Your task to perform on an android device: change notification settings in the gmail app Image 0: 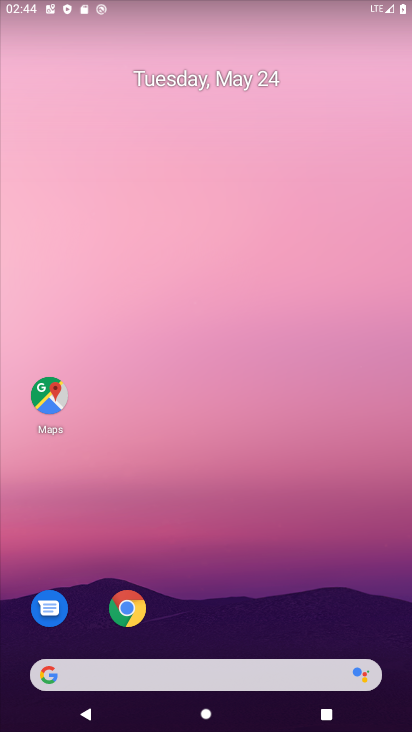
Step 0: drag from (250, 625) to (186, 239)
Your task to perform on an android device: change notification settings in the gmail app Image 1: 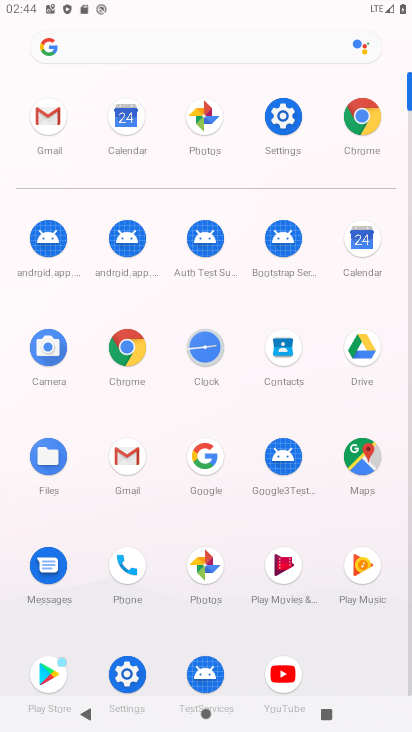
Step 1: click (32, 114)
Your task to perform on an android device: change notification settings in the gmail app Image 2: 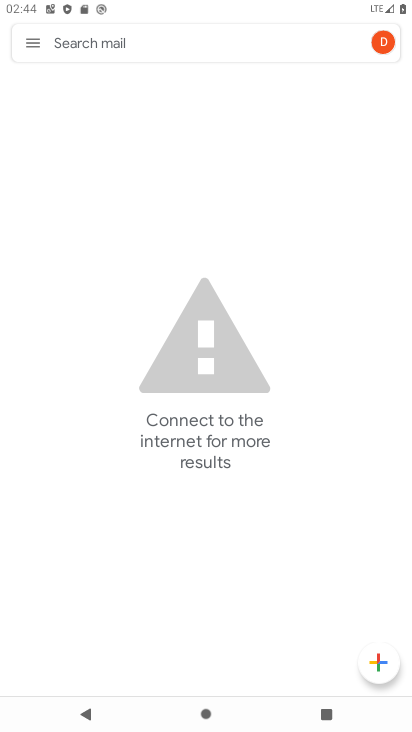
Step 2: click (28, 47)
Your task to perform on an android device: change notification settings in the gmail app Image 3: 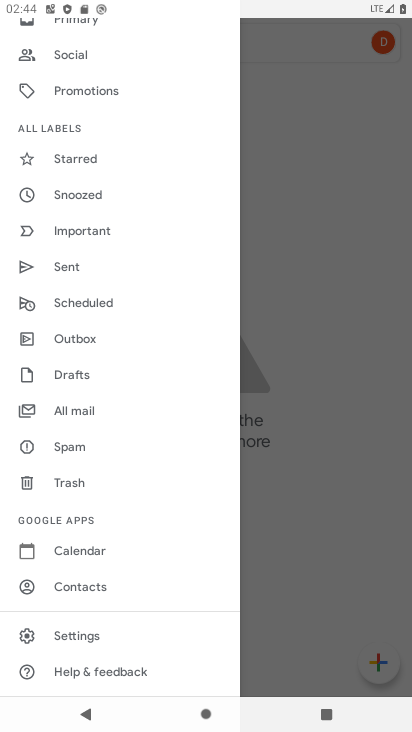
Step 3: click (89, 632)
Your task to perform on an android device: change notification settings in the gmail app Image 4: 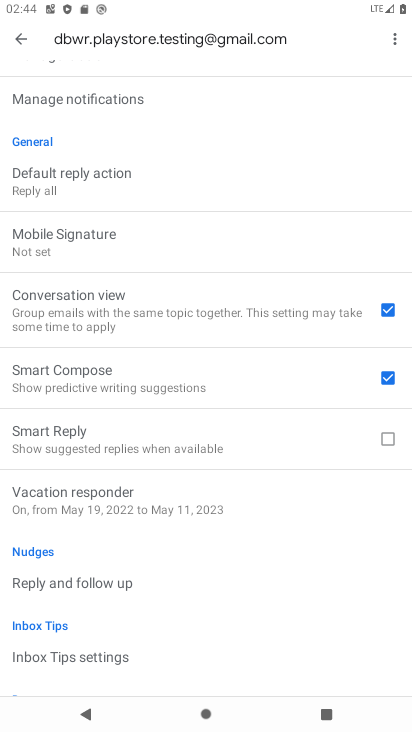
Step 4: click (171, 93)
Your task to perform on an android device: change notification settings in the gmail app Image 5: 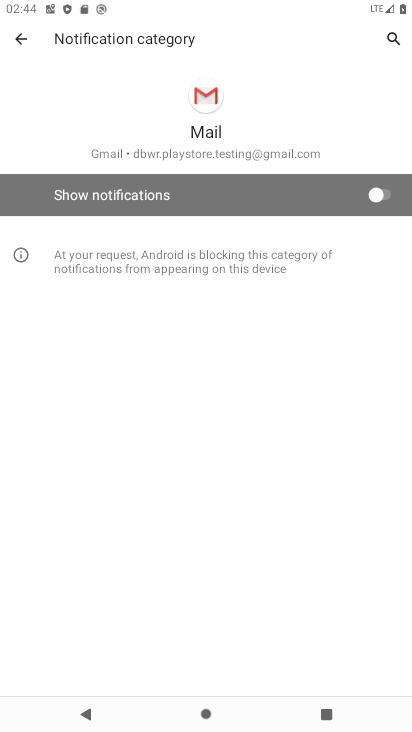
Step 5: click (381, 206)
Your task to perform on an android device: change notification settings in the gmail app Image 6: 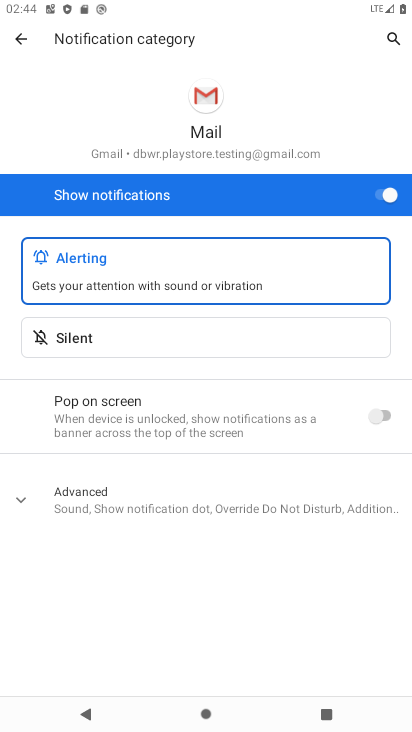
Step 6: click (350, 341)
Your task to perform on an android device: change notification settings in the gmail app Image 7: 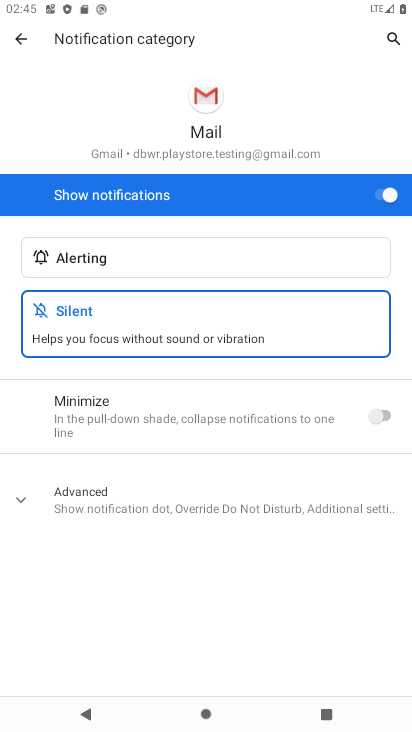
Step 7: click (380, 420)
Your task to perform on an android device: change notification settings in the gmail app Image 8: 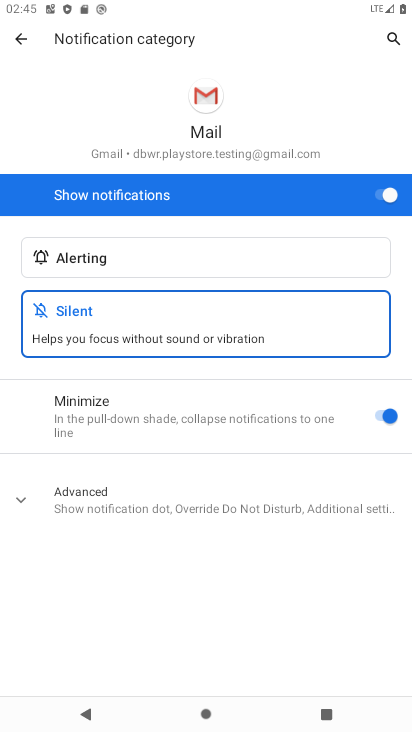
Step 8: task complete